Your task to perform on an android device: Go to settings Image 0: 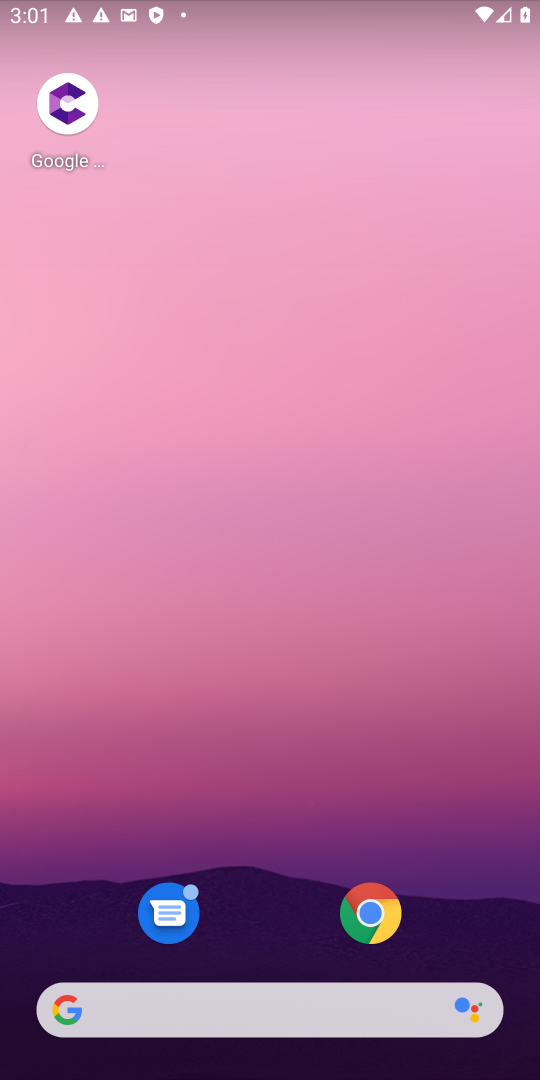
Step 0: drag from (435, 957) to (444, 22)
Your task to perform on an android device: Go to settings Image 1: 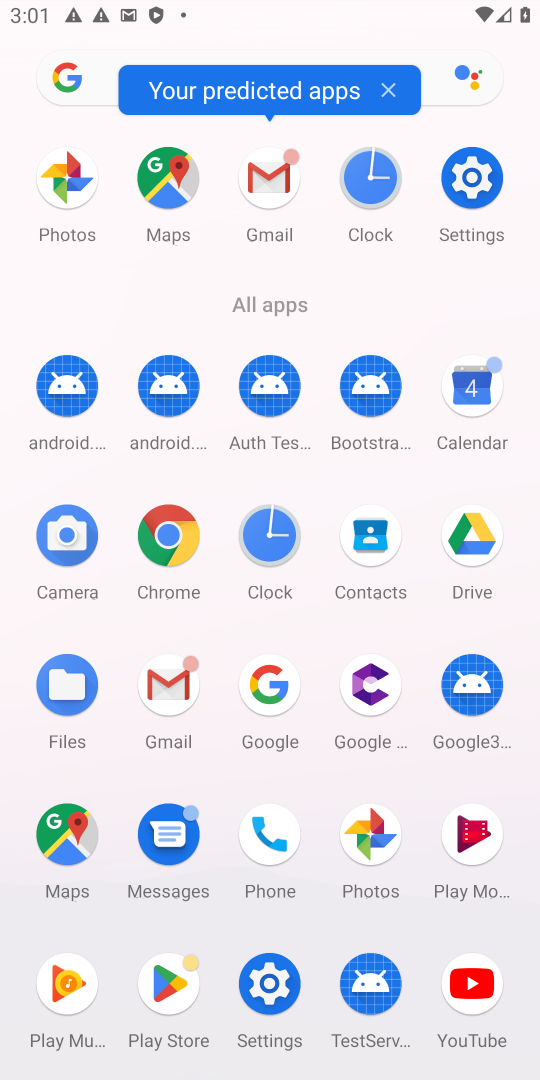
Step 1: click (473, 182)
Your task to perform on an android device: Go to settings Image 2: 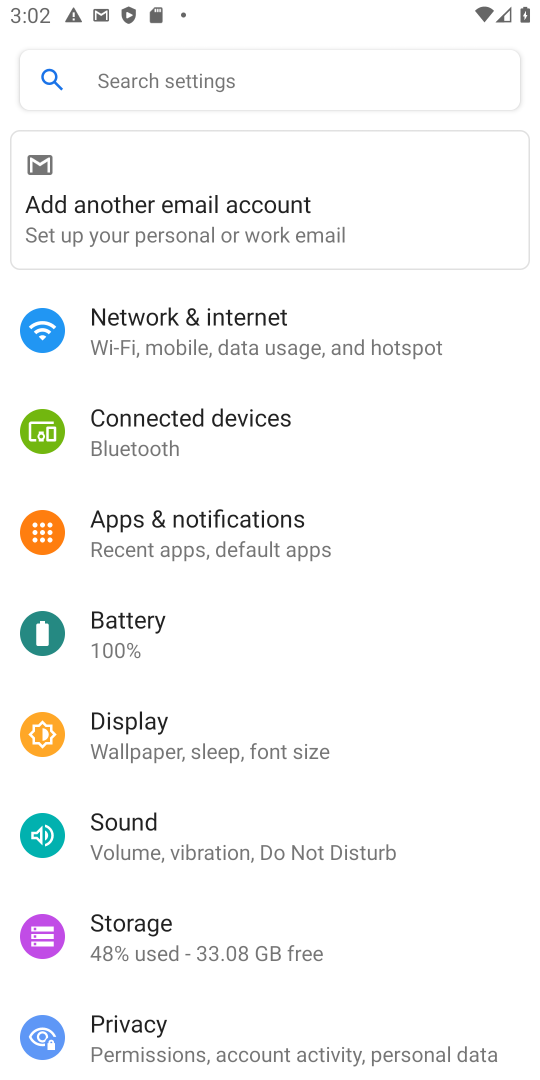
Step 2: task complete